Your task to perform on an android device: remove spam from my inbox in the gmail app Image 0: 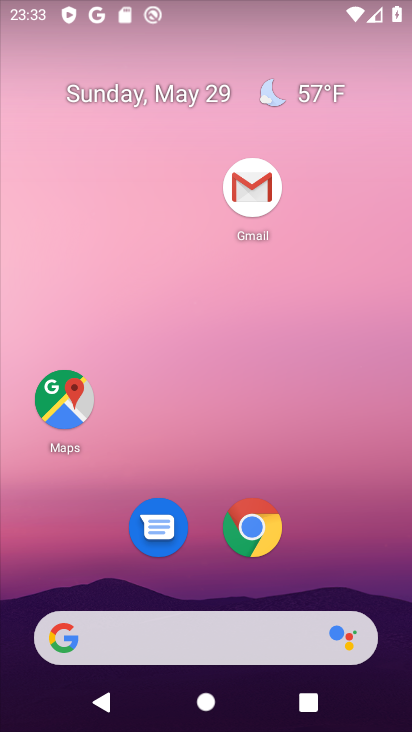
Step 0: click (250, 186)
Your task to perform on an android device: remove spam from my inbox in the gmail app Image 1: 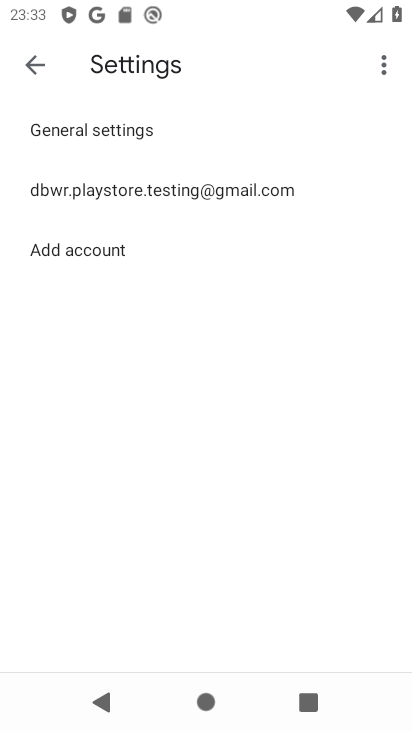
Step 1: press back button
Your task to perform on an android device: remove spam from my inbox in the gmail app Image 2: 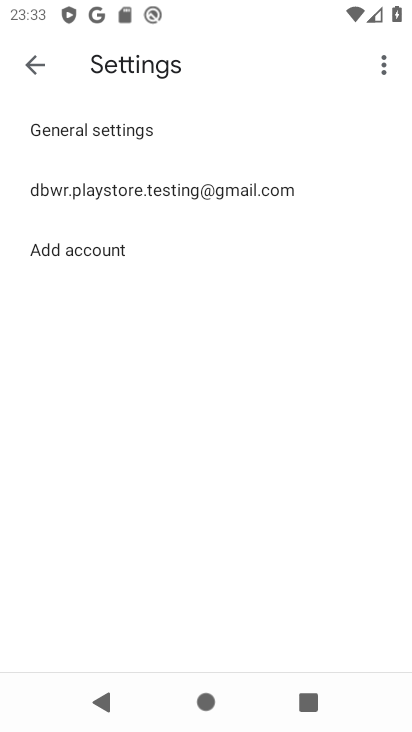
Step 2: press back button
Your task to perform on an android device: remove spam from my inbox in the gmail app Image 3: 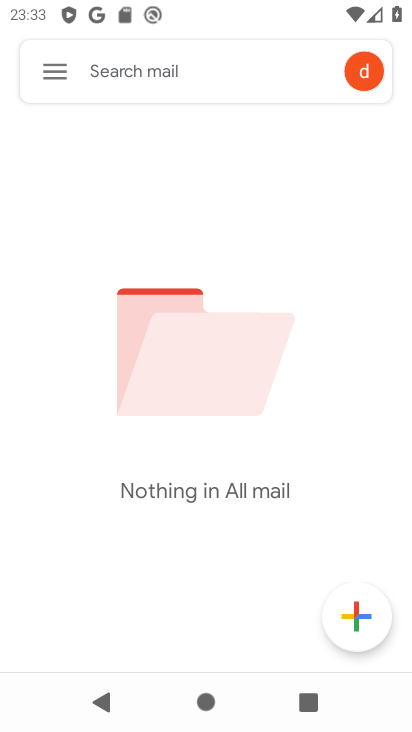
Step 3: click (53, 69)
Your task to perform on an android device: remove spam from my inbox in the gmail app Image 4: 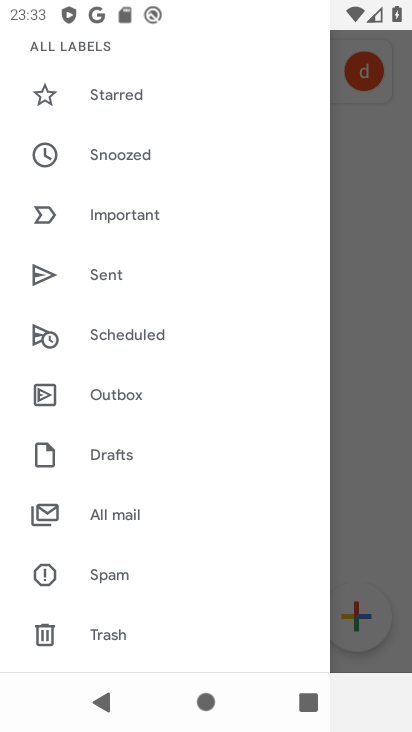
Step 4: drag from (144, 292) to (164, 389)
Your task to perform on an android device: remove spam from my inbox in the gmail app Image 5: 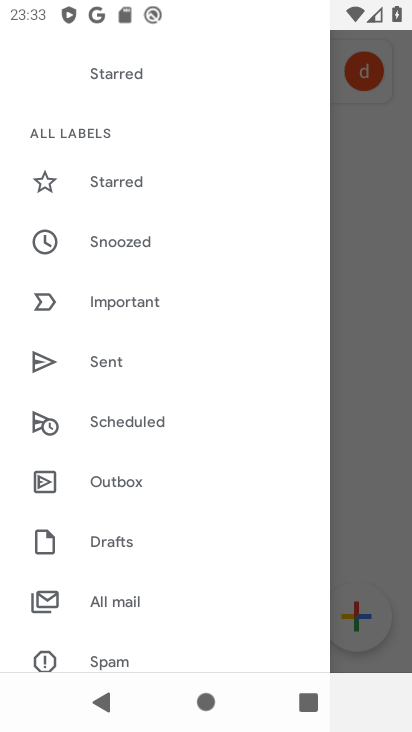
Step 5: drag from (141, 471) to (199, 375)
Your task to perform on an android device: remove spam from my inbox in the gmail app Image 6: 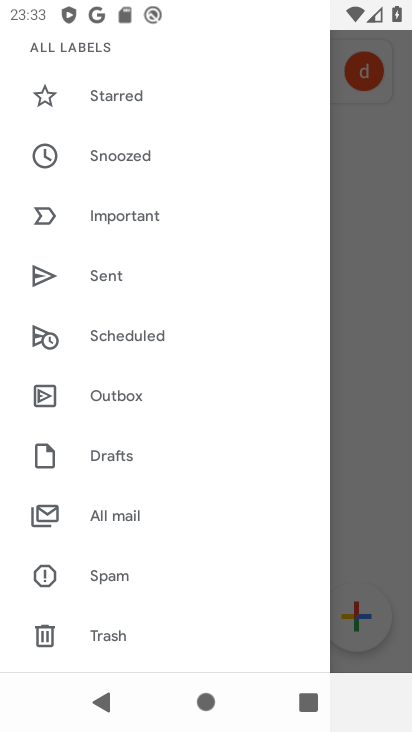
Step 6: click (114, 580)
Your task to perform on an android device: remove spam from my inbox in the gmail app Image 7: 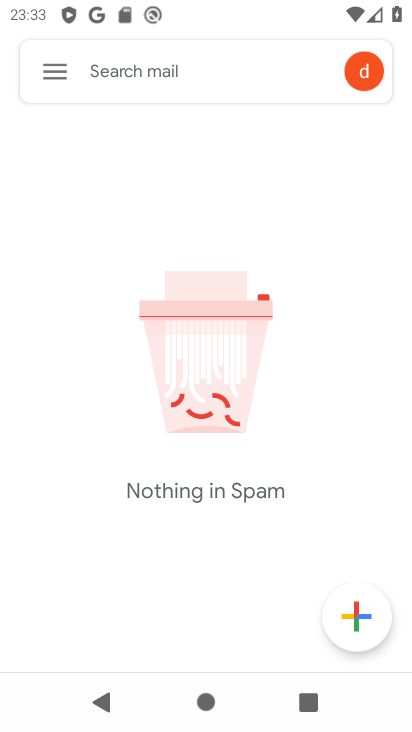
Step 7: task complete